Your task to perform on an android device: turn on priority inbox in the gmail app Image 0: 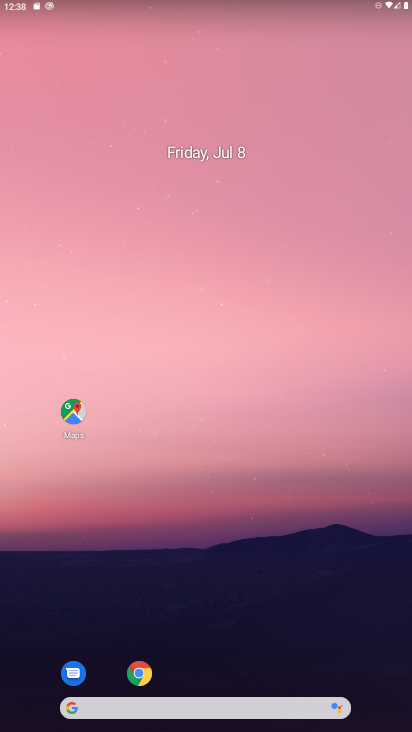
Step 0: drag from (400, 707) to (381, 173)
Your task to perform on an android device: turn on priority inbox in the gmail app Image 1: 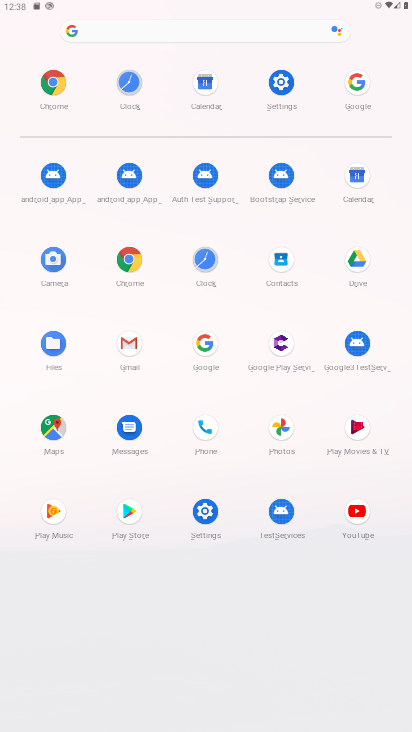
Step 1: click (121, 341)
Your task to perform on an android device: turn on priority inbox in the gmail app Image 2: 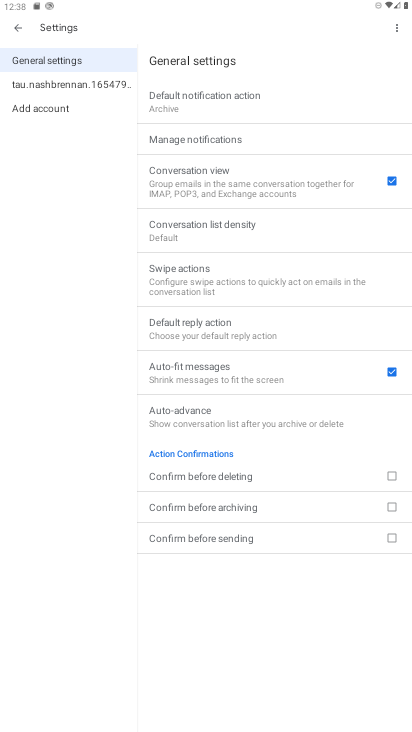
Step 2: click (91, 82)
Your task to perform on an android device: turn on priority inbox in the gmail app Image 3: 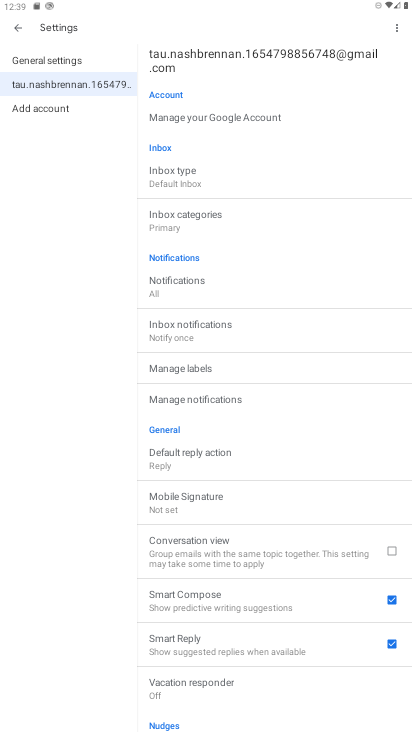
Step 3: click (176, 172)
Your task to perform on an android device: turn on priority inbox in the gmail app Image 4: 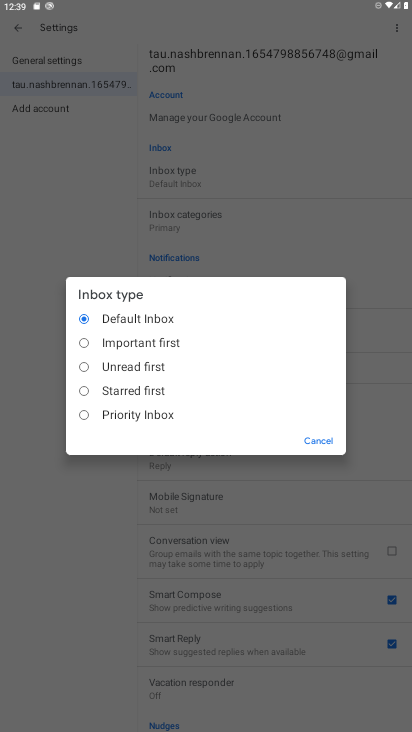
Step 4: click (102, 412)
Your task to perform on an android device: turn on priority inbox in the gmail app Image 5: 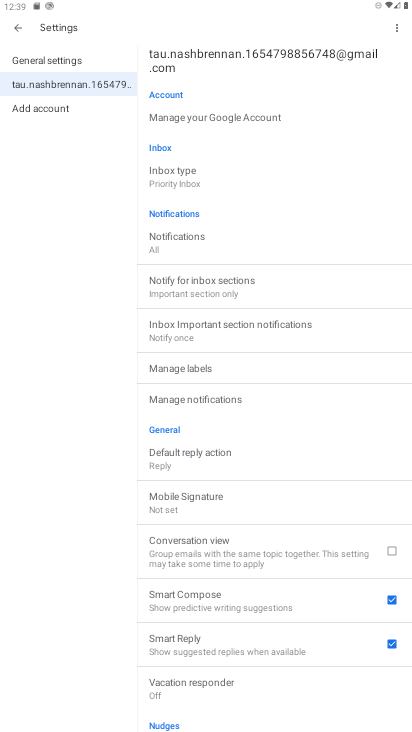
Step 5: task complete